Your task to perform on an android device: Open internet settings Image 0: 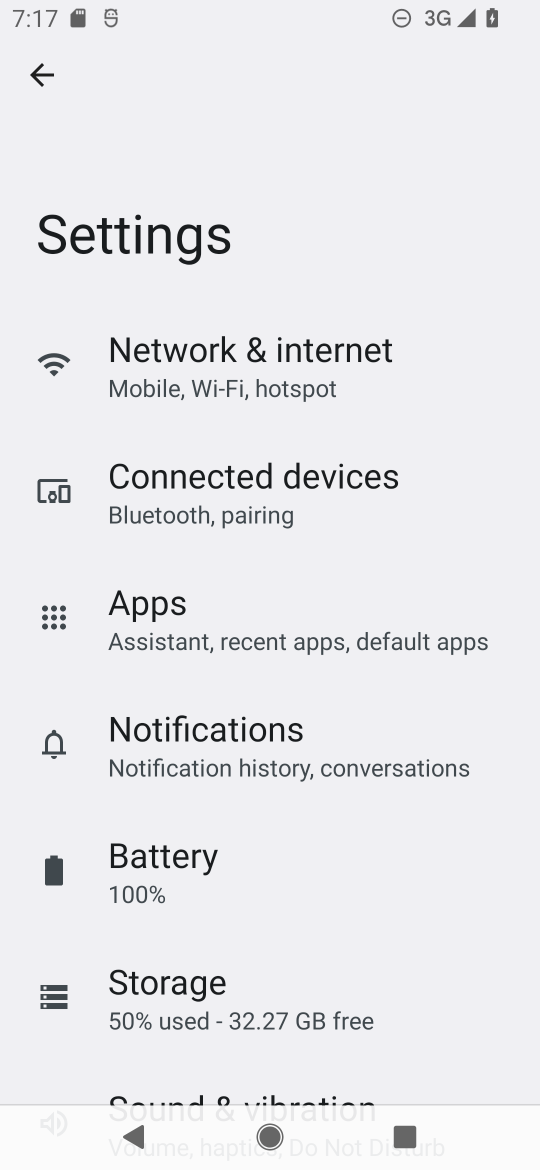
Step 0: press home button
Your task to perform on an android device: Open internet settings Image 1: 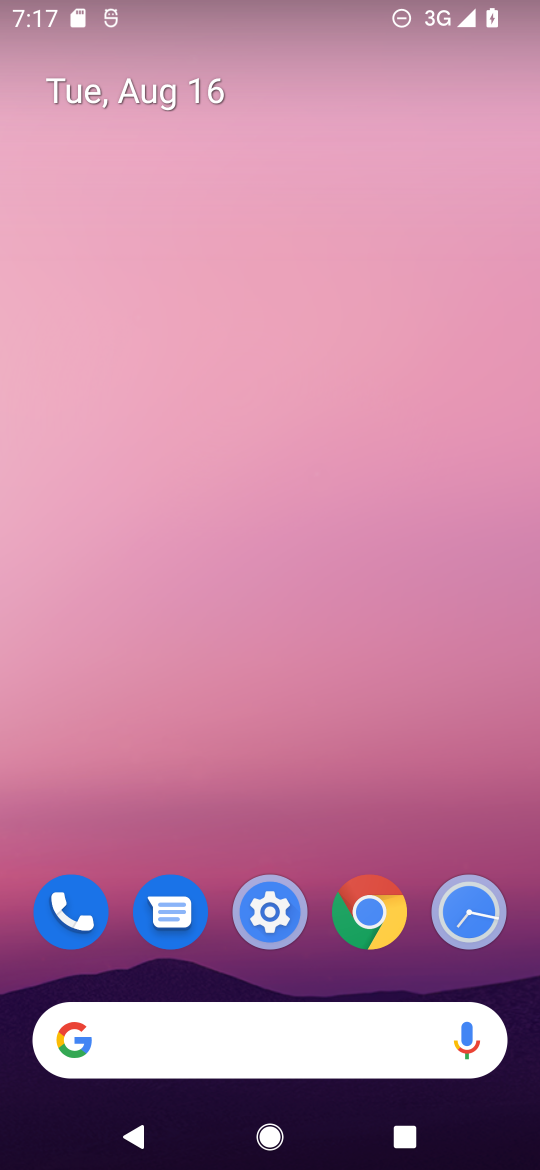
Step 1: click (272, 910)
Your task to perform on an android device: Open internet settings Image 2: 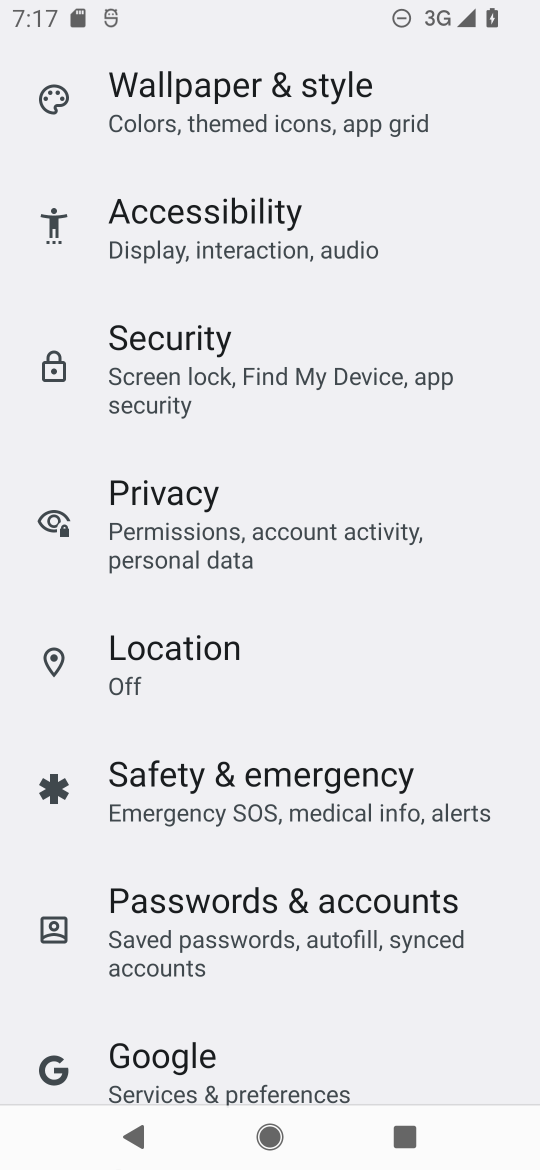
Step 2: drag from (411, 283) to (415, 729)
Your task to perform on an android device: Open internet settings Image 3: 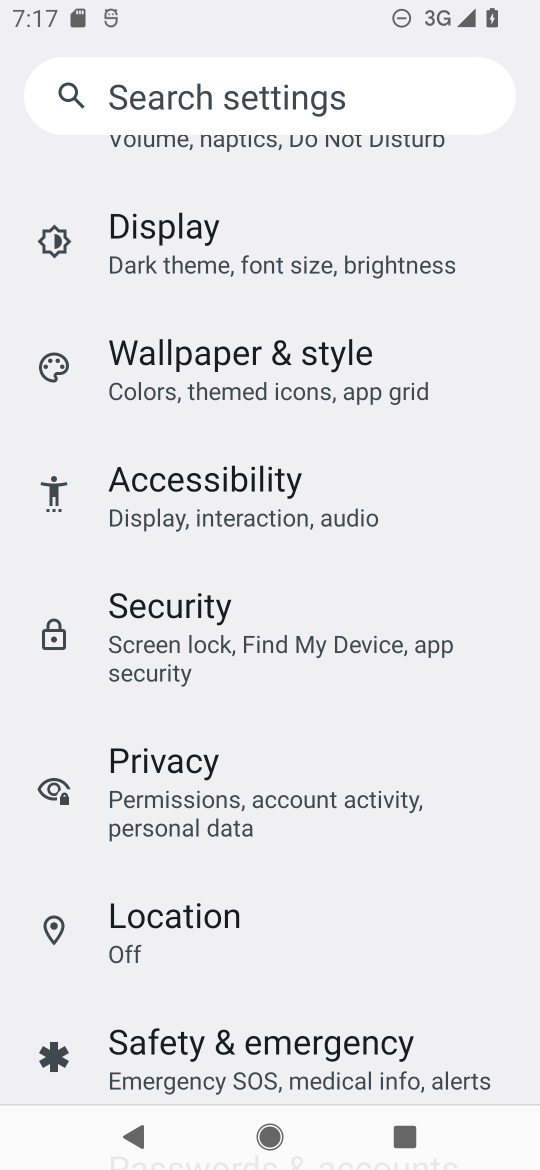
Step 3: drag from (487, 275) to (430, 885)
Your task to perform on an android device: Open internet settings Image 4: 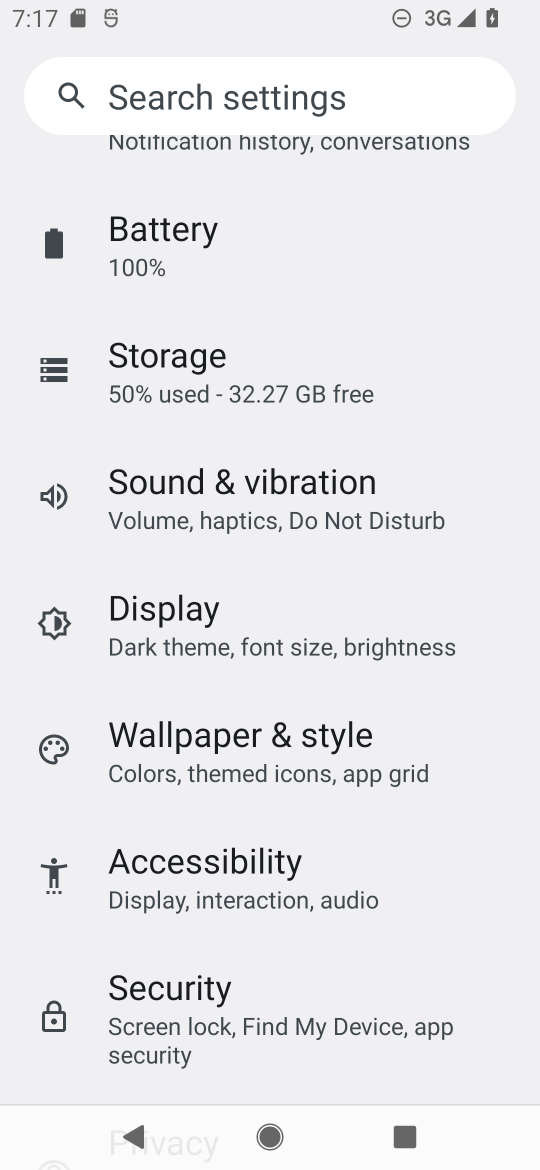
Step 4: drag from (483, 304) to (460, 783)
Your task to perform on an android device: Open internet settings Image 5: 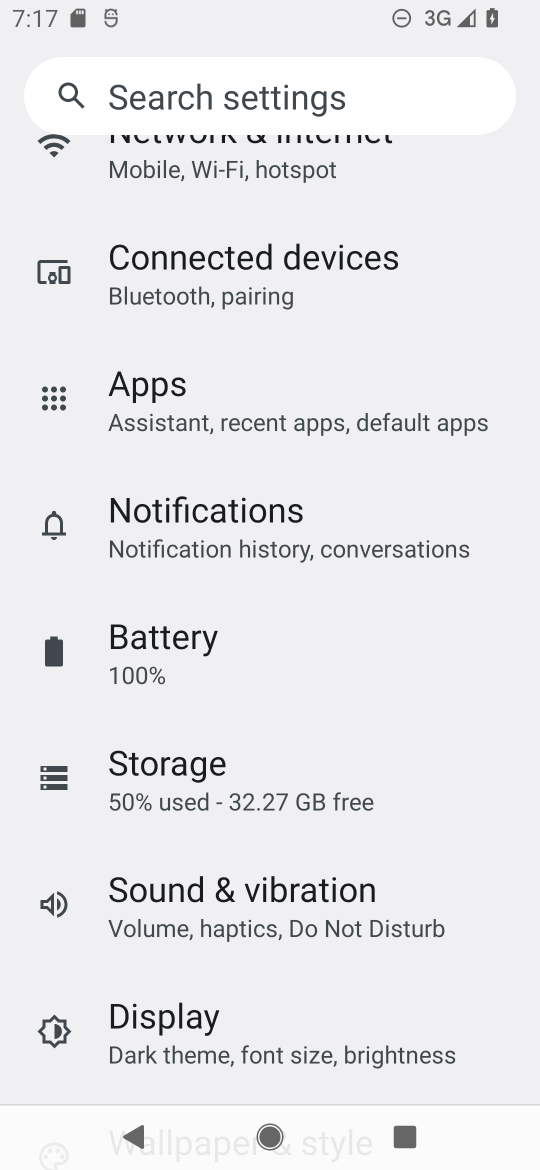
Step 5: drag from (492, 245) to (463, 814)
Your task to perform on an android device: Open internet settings Image 6: 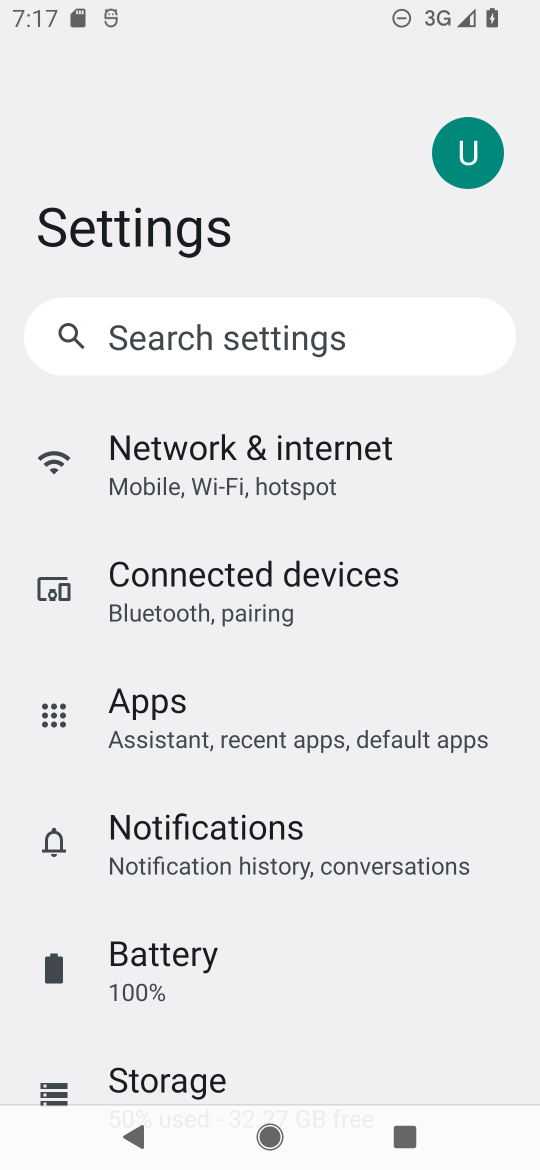
Step 6: click (135, 449)
Your task to perform on an android device: Open internet settings Image 7: 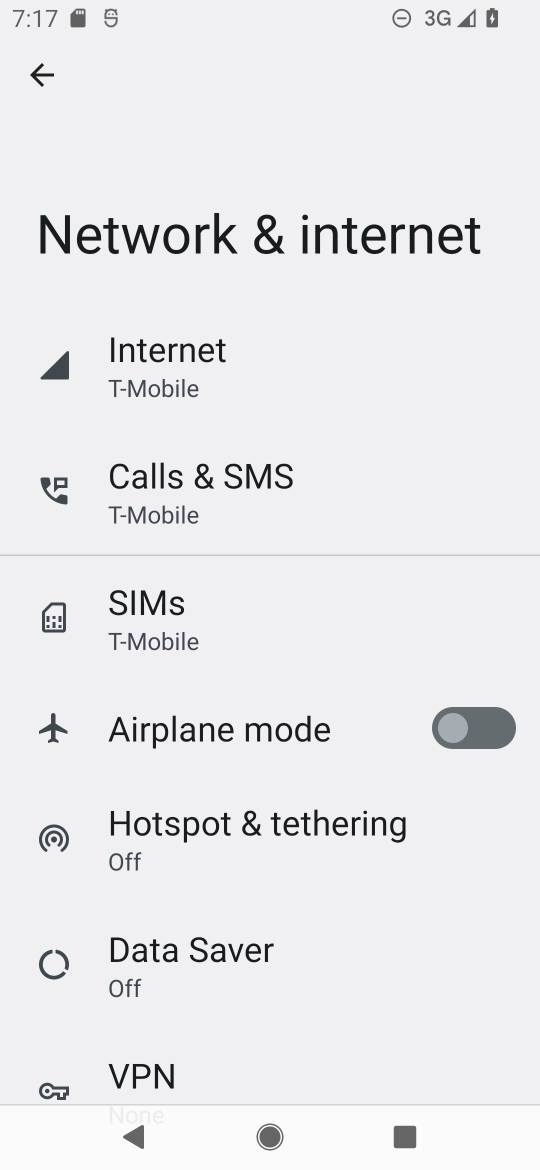
Step 7: click (164, 361)
Your task to perform on an android device: Open internet settings Image 8: 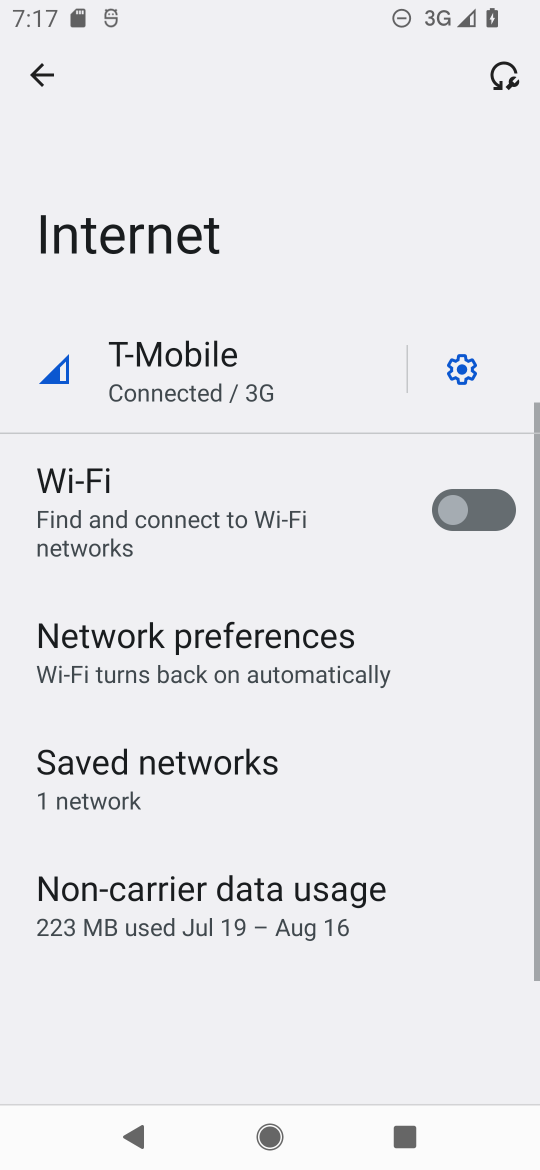
Step 8: click (471, 369)
Your task to perform on an android device: Open internet settings Image 9: 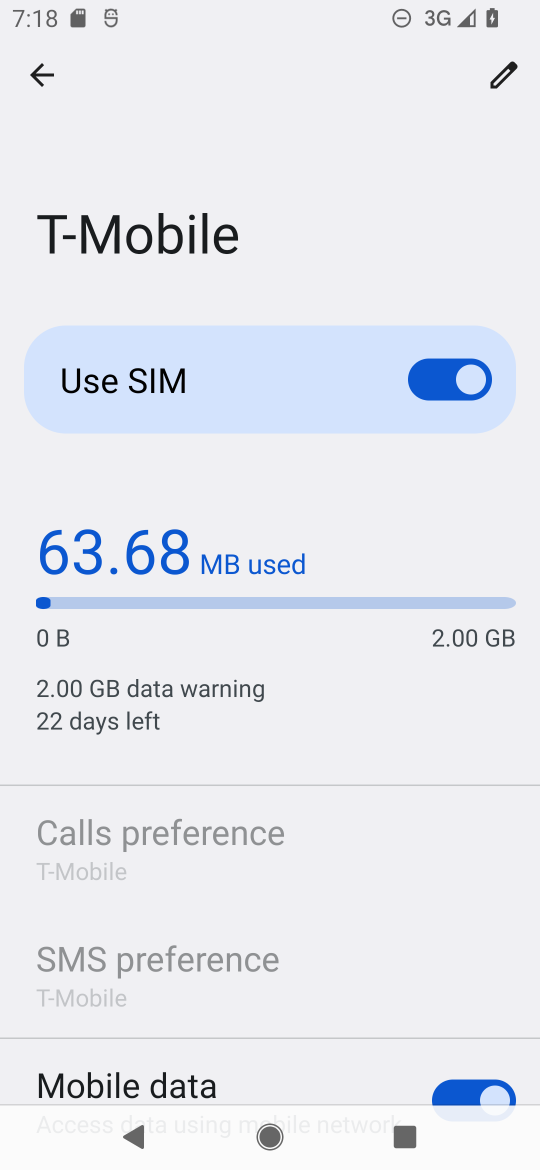
Step 9: task complete